Your task to perform on an android device: Open the calendar and show me this week's events? Image 0: 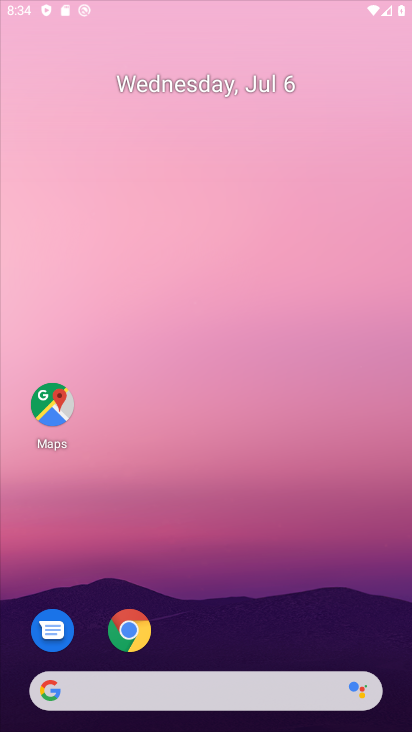
Step 0: press home button
Your task to perform on an android device: Open the calendar and show me this week's events? Image 1: 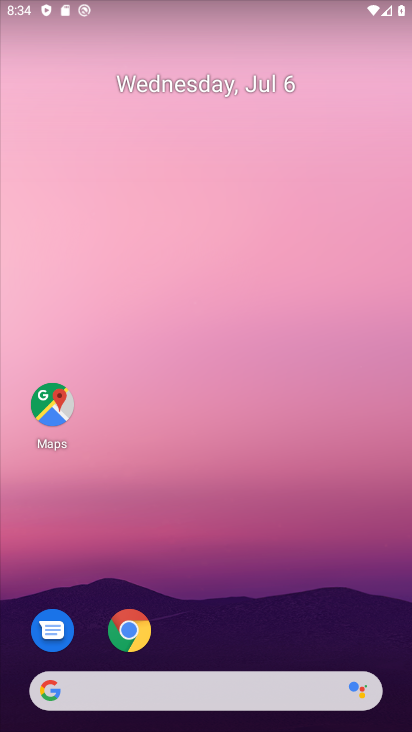
Step 1: drag from (347, 631) to (296, 86)
Your task to perform on an android device: Open the calendar and show me this week's events? Image 2: 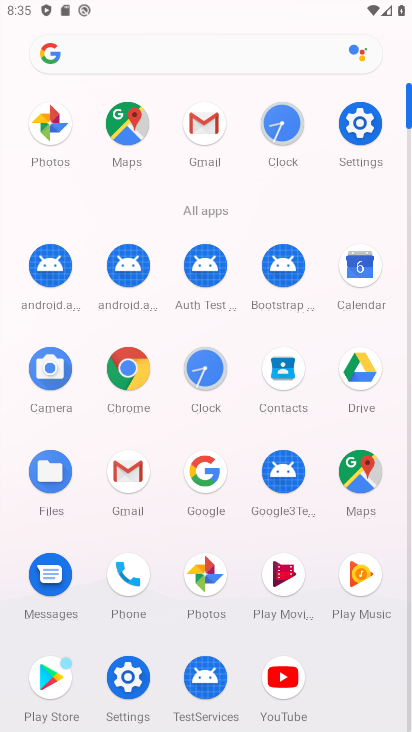
Step 2: click (362, 268)
Your task to perform on an android device: Open the calendar and show me this week's events? Image 3: 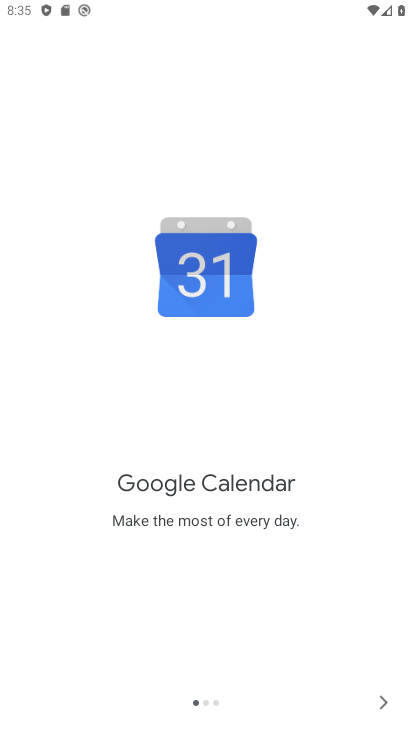
Step 3: click (382, 699)
Your task to perform on an android device: Open the calendar and show me this week's events? Image 4: 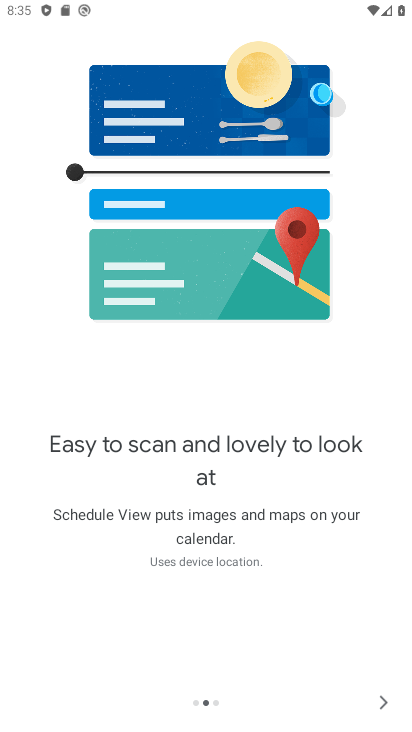
Step 4: click (382, 699)
Your task to perform on an android device: Open the calendar and show me this week's events? Image 5: 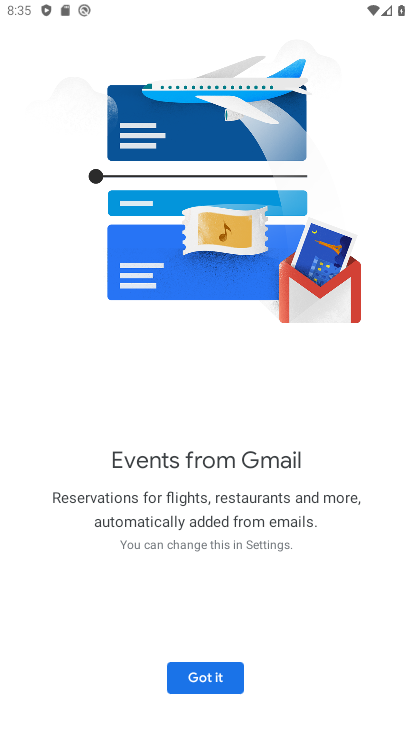
Step 5: click (212, 673)
Your task to perform on an android device: Open the calendar and show me this week's events? Image 6: 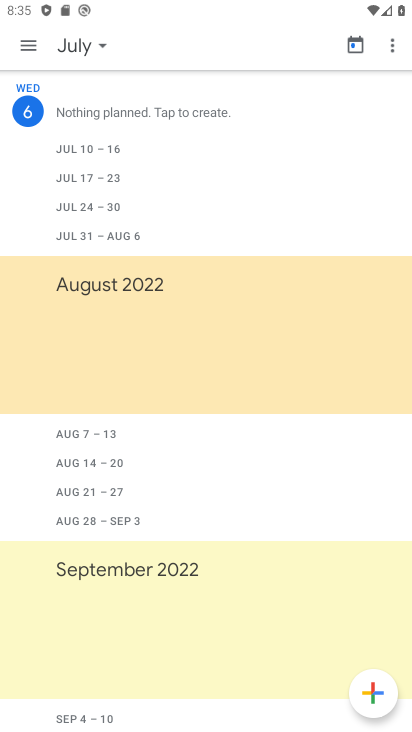
Step 6: click (31, 46)
Your task to perform on an android device: Open the calendar and show me this week's events? Image 7: 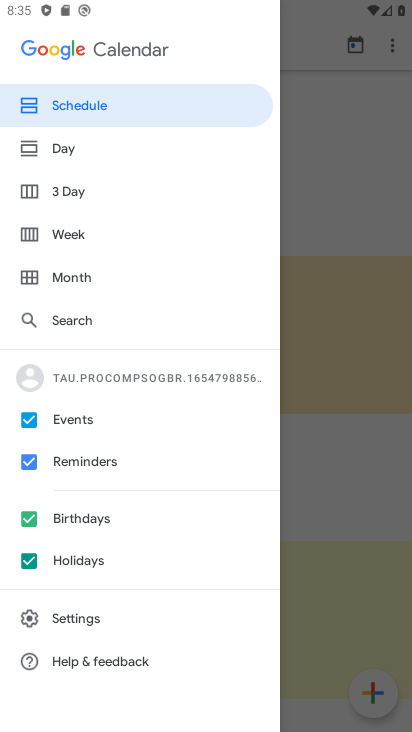
Step 7: click (68, 230)
Your task to perform on an android device: Open the calendar and show me this week's events? Image 8: 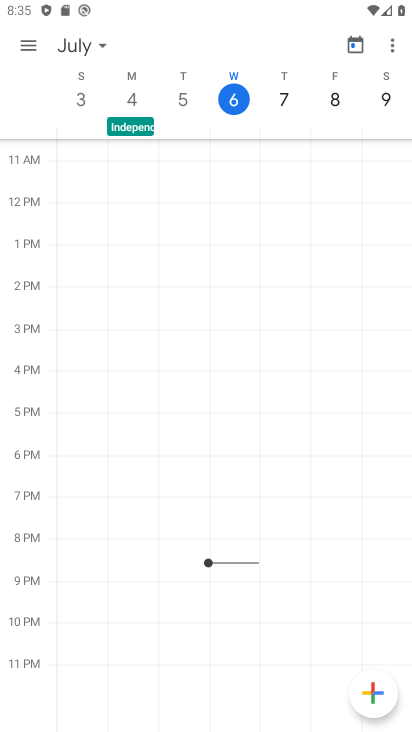
Step 8: task complete